Your task to perform on an android device: move a message to another label in the gmail app Image 0: 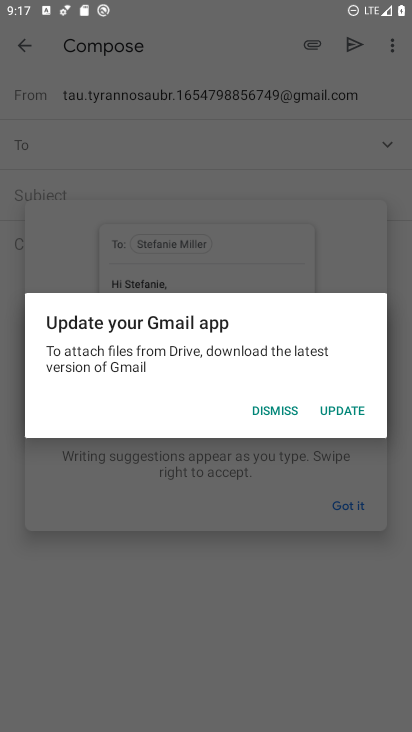
Step 0: press home button
Your task to perform on an android device: move a message to another label in the gmail app Image 1: 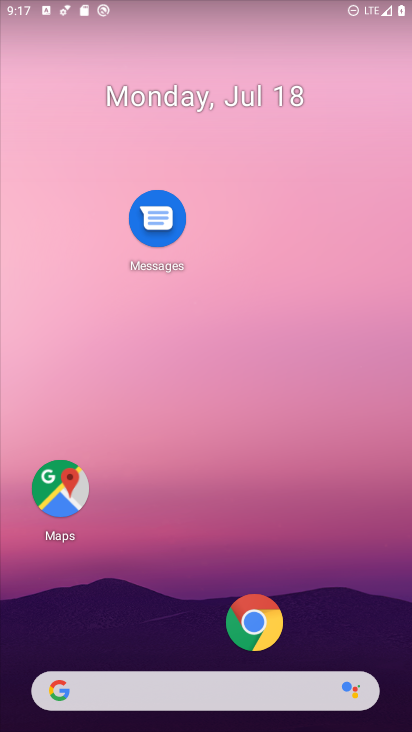
Step 1: drag from (296, 647) to (379, 135)
Your task to perform on an android device: move a message to another label in the gmail app Image 2: 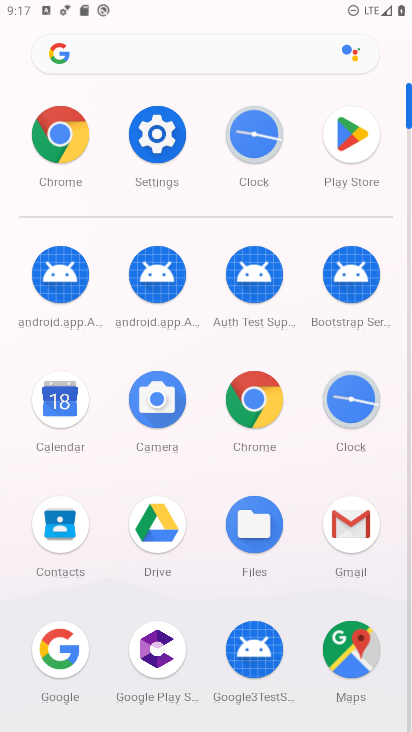
Step 2: drag from (294, 558) to (344, 304)
Your task to perform on an android device: move a message to another label in the gmail app Image 3: 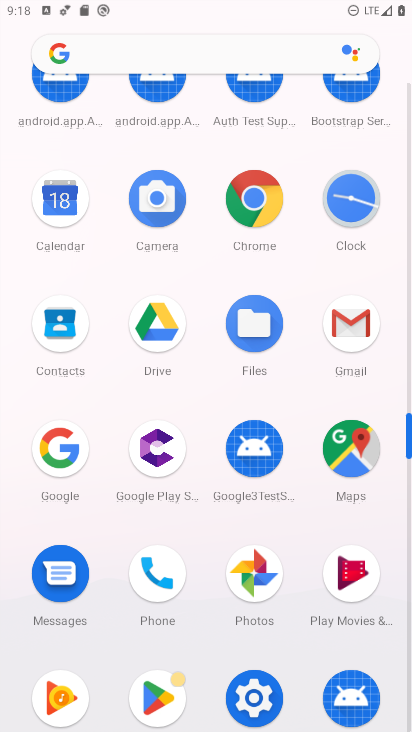
Step 3: click (357, 349)
Your task to perform on an android device: move a message to another label in the gmail app Image 4: 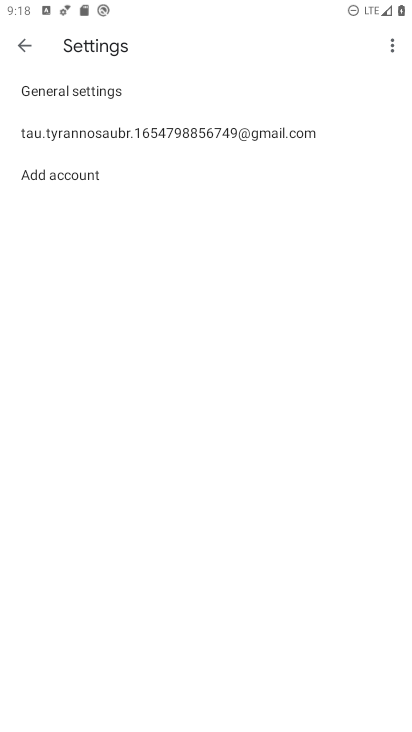
Step 4: click (23, 51)
Your task to perform on an android device: move a message to another label in the gmail app Image 5: 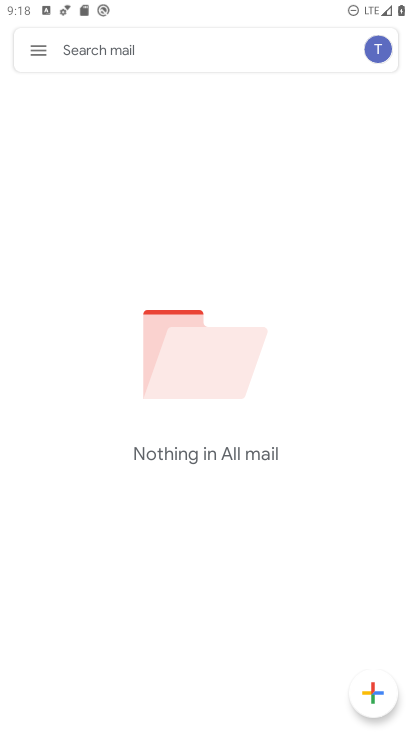
Step 5: click (40, 50)
Your task to perform on an android device: move a message to another label in the gmail app Image 6: 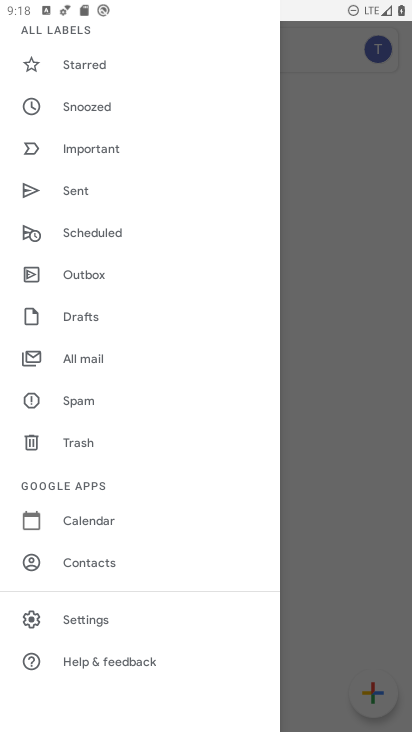
Step 6: task complete